Your task to perform on an android device: Search for Italian restaurants on Maps Image 0: 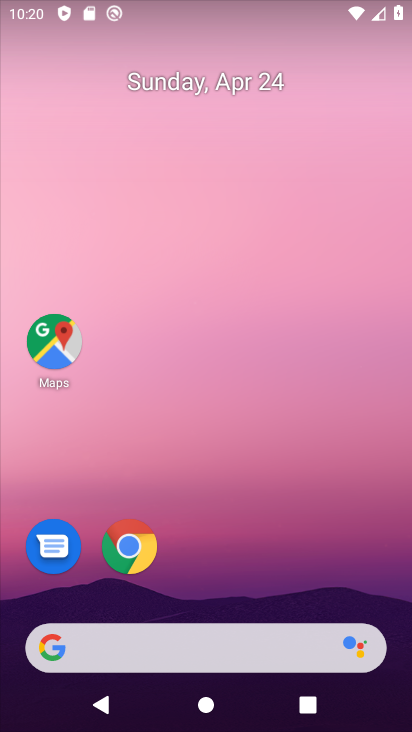
Step 0: click (47, 332)
Your task to perform on an android device: Search for Italian restaurants on Maps Image 1: 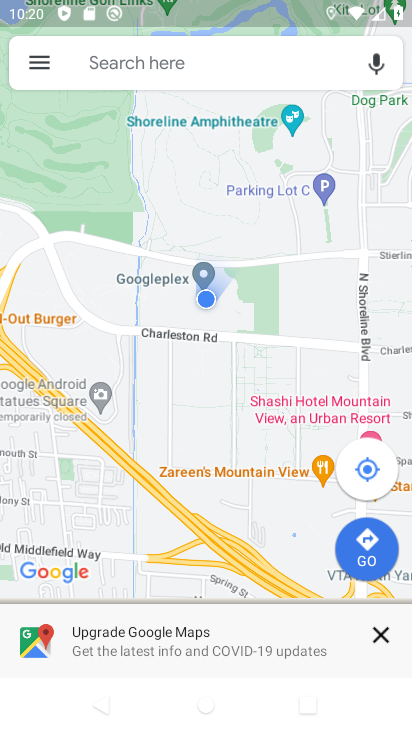
Step 1: click (144, 64)
Your task to perform on an android device: Search for Italian restaurants on Maps Image 2: 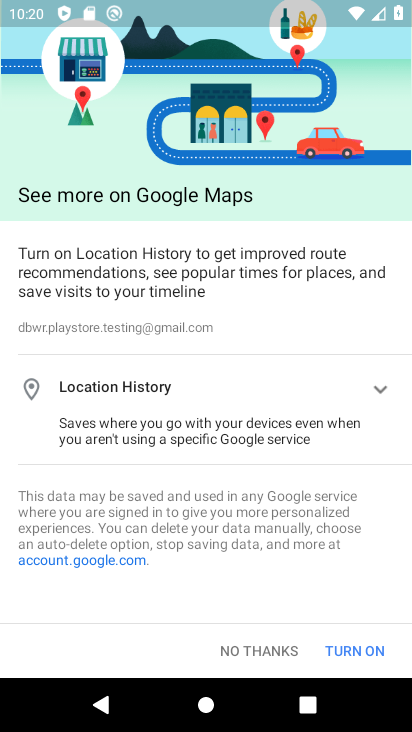
Step 2: click (250, 654)
Your task to perform on an android device: Search for Italian restaurants on Maps Image 3: 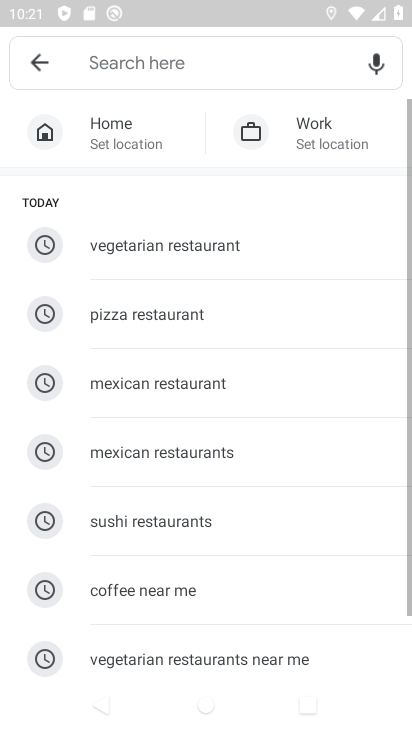
Step 3: click (108, 67)
Your task to perform on an android device: Search for Italian restaurants on Maps Image 4: 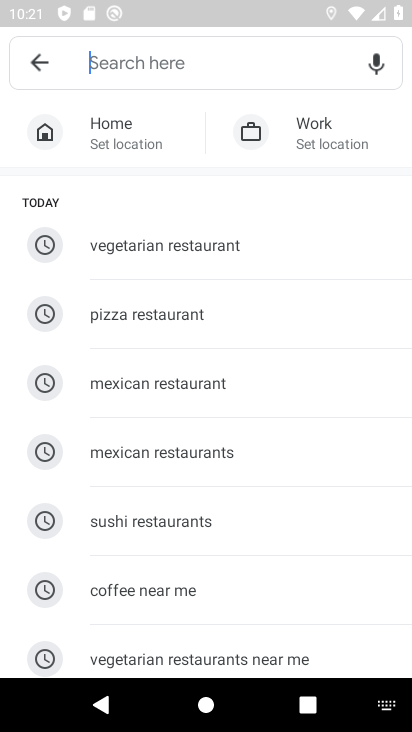
Step 4: type "italian restaurant"
Your task to perform on an android device: Search for Italian restaurants on Maps Image 5: 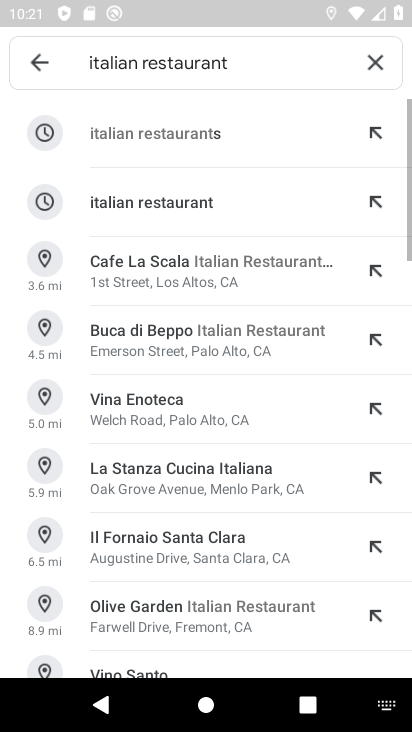
Step 5: click (144, 142)
Your task to perform on an android device: Search for Italian restaurants on Maps Image 6: 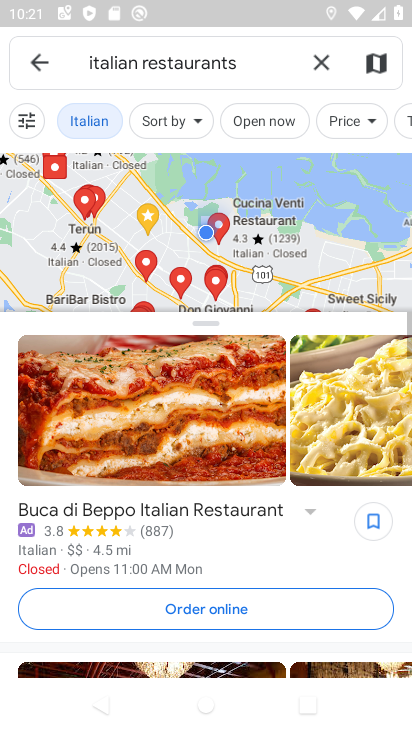
Step 6: task complete